Your task to perform on an android device: turn off improve location accuracy Image 0: 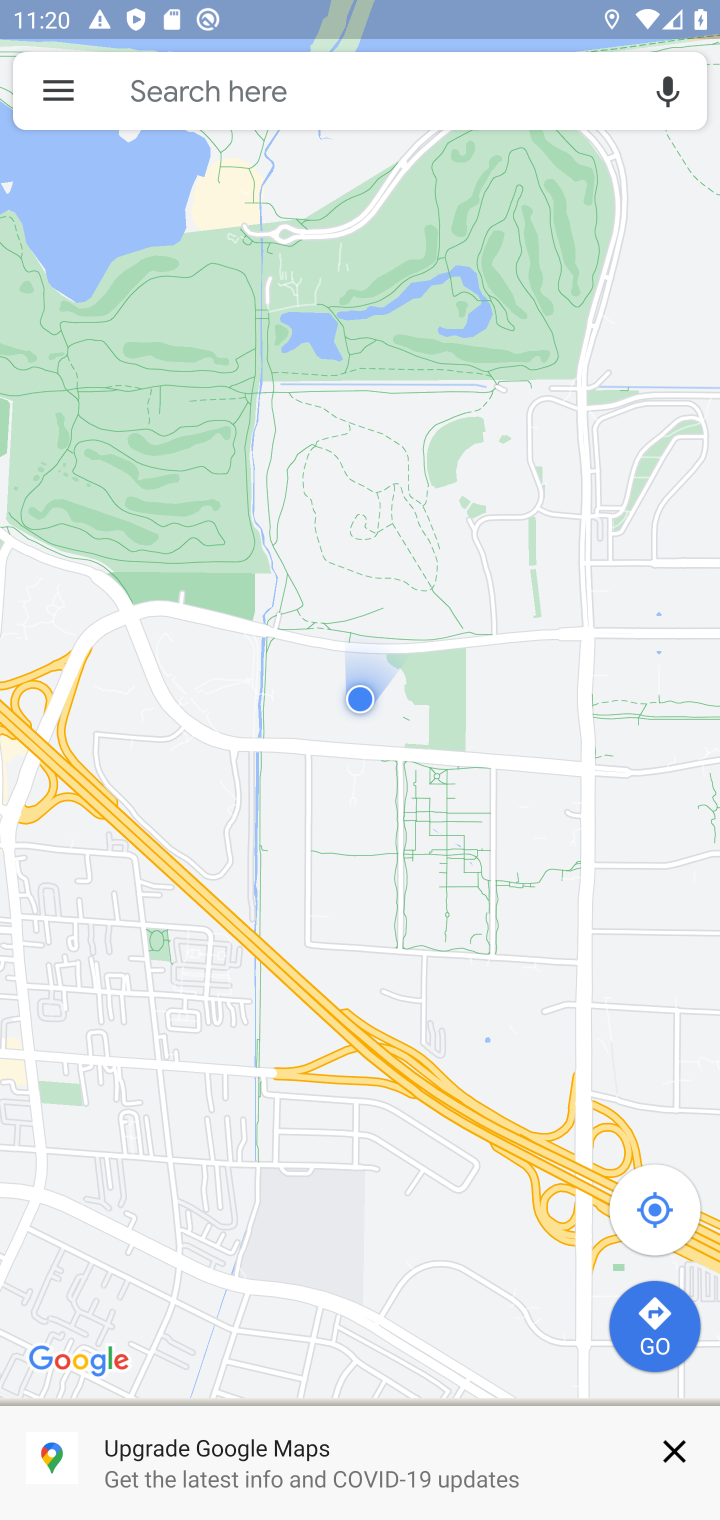
Step 0: press home button
Your task to perform on an android device: turn off improve location accuracy Image 1: 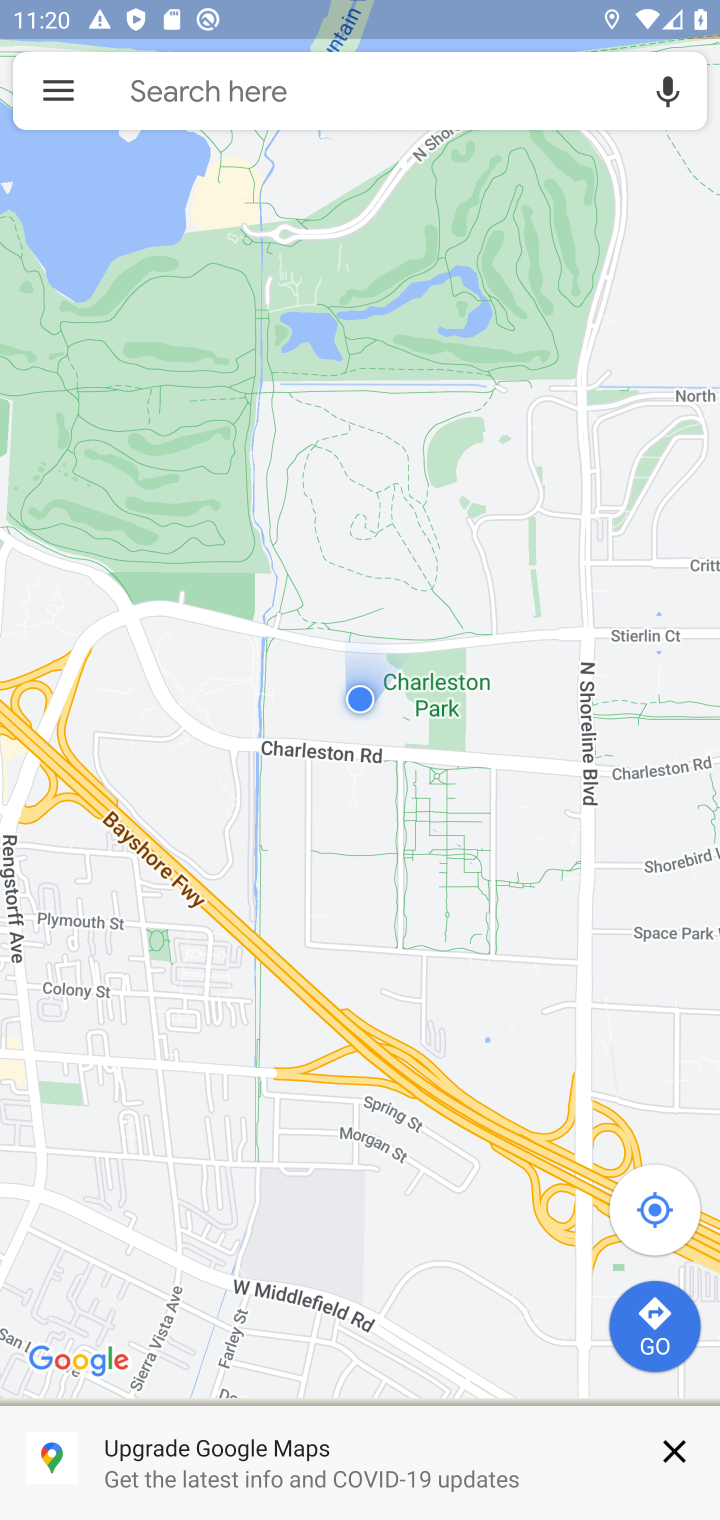
Step 1: press home button
Your task to perform on an android device: turn off improve location accuracy Image 2: 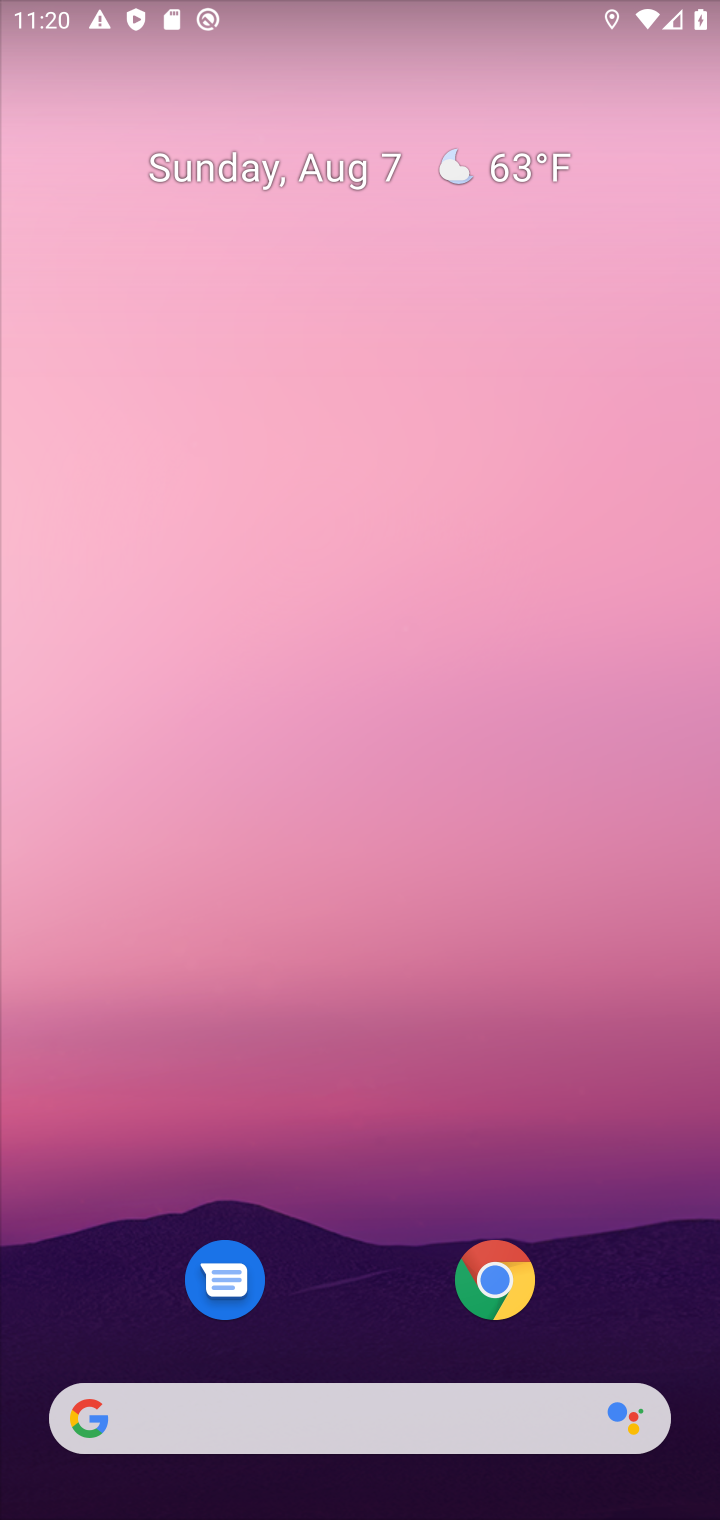
Step 2: press home button
Your task to perform on an android device: turn off improve location accuracy Image 3: 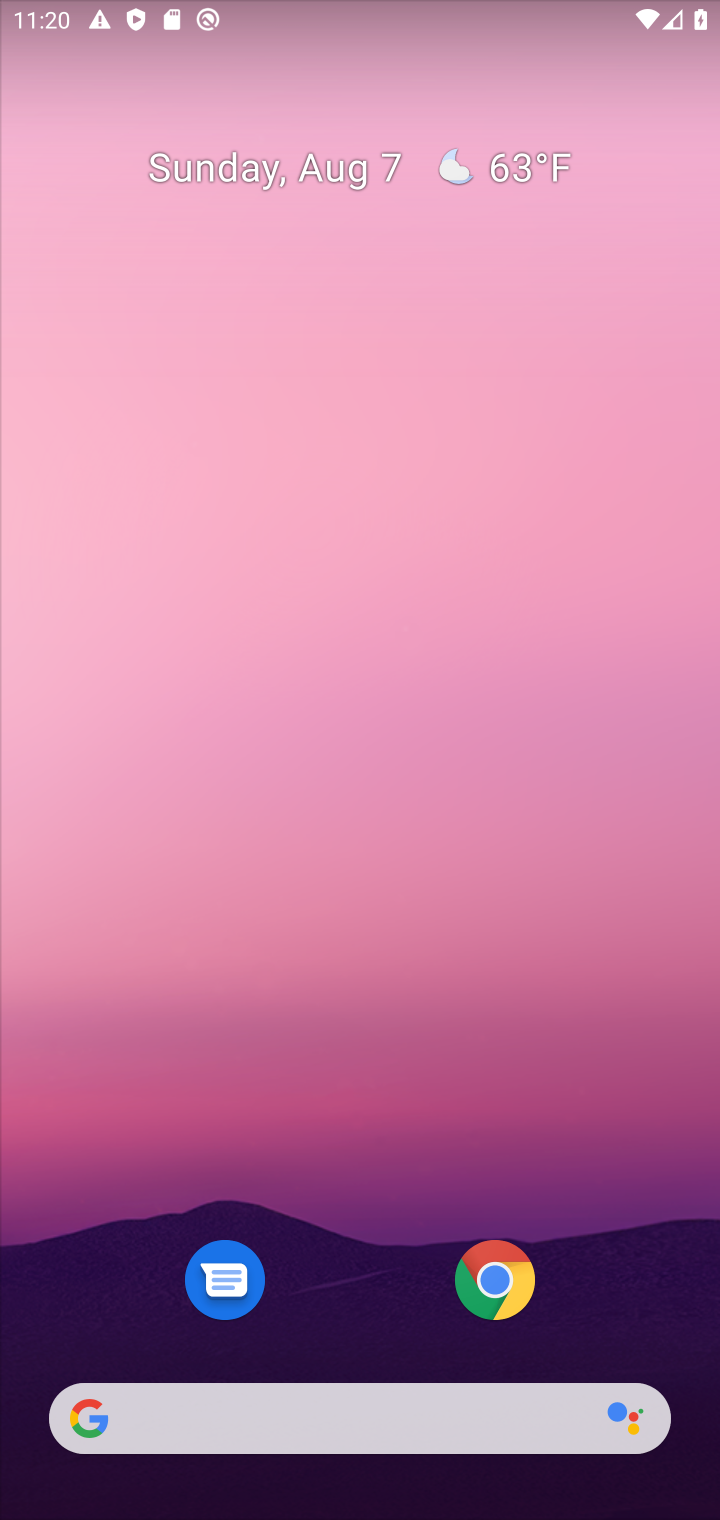
Step 3: drag from (375, 1168) to (278, 183)
Your task to perform on an android device: turn off improve location accuracy Image 4: 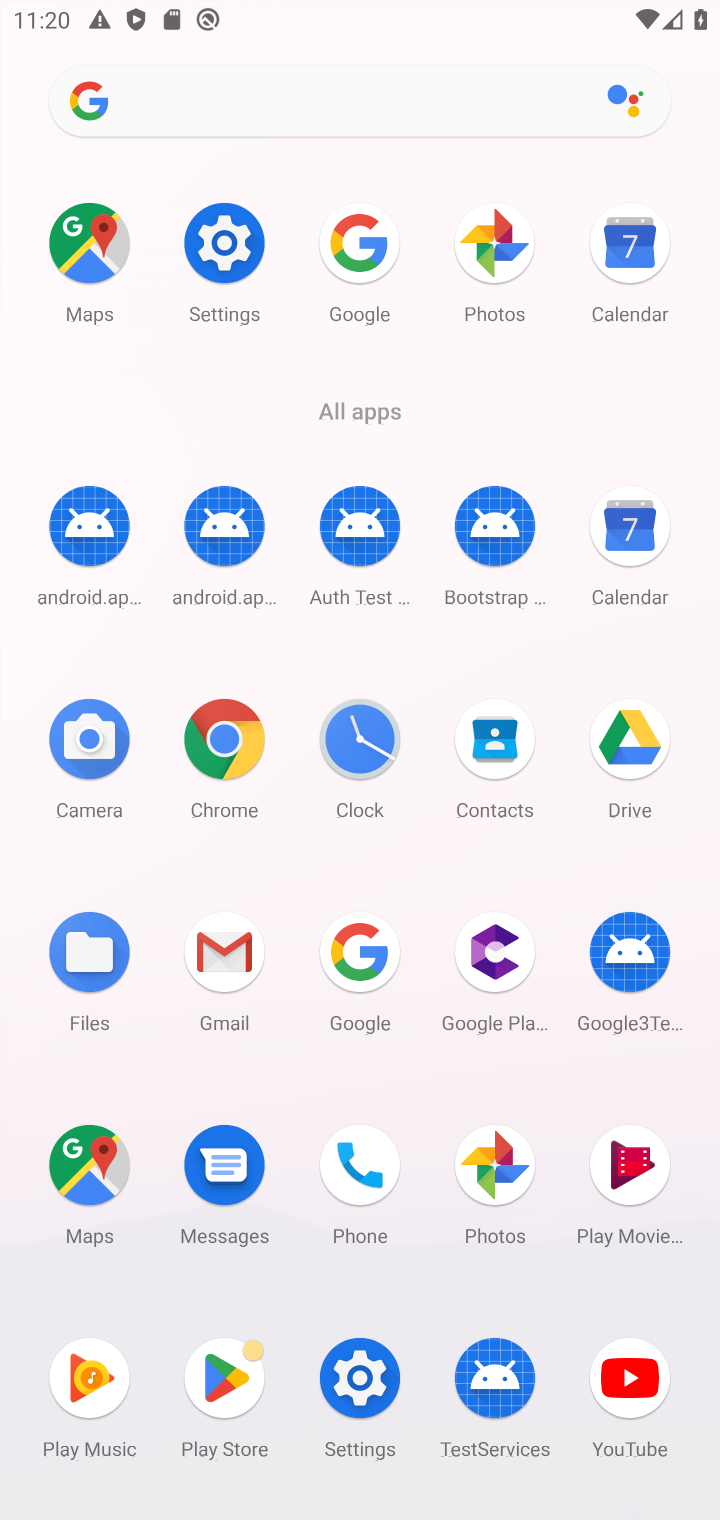
Step 4: click (345, 1380)
Your task to perform on an android device: turn off improve location accuracy Image 5: 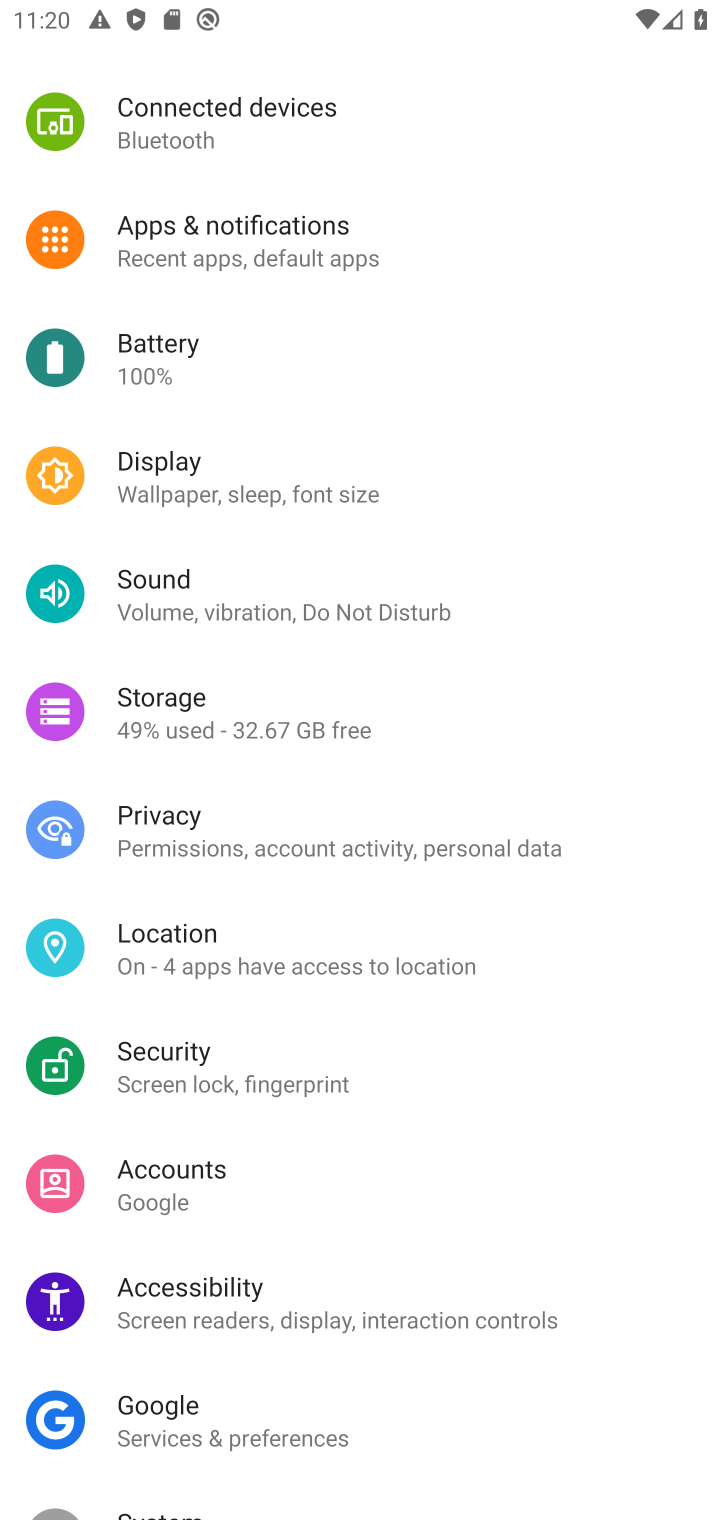
Step 5: click (171, 934)
Your task to perform on an android device: turn off improve location accuracy Image 6: 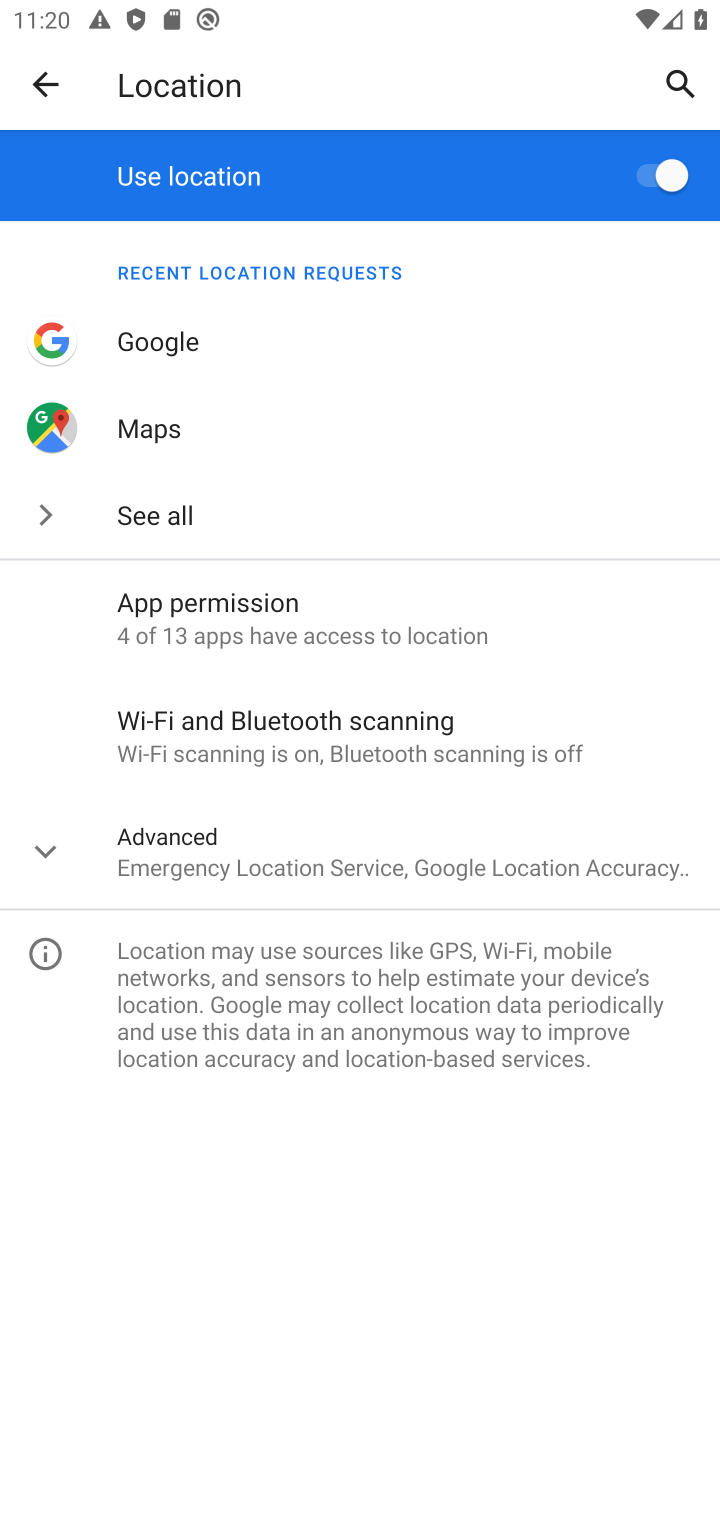
Step 6: click (252, 869)
Your task to perform on an android device: turn off improve location accuracy Image 7: 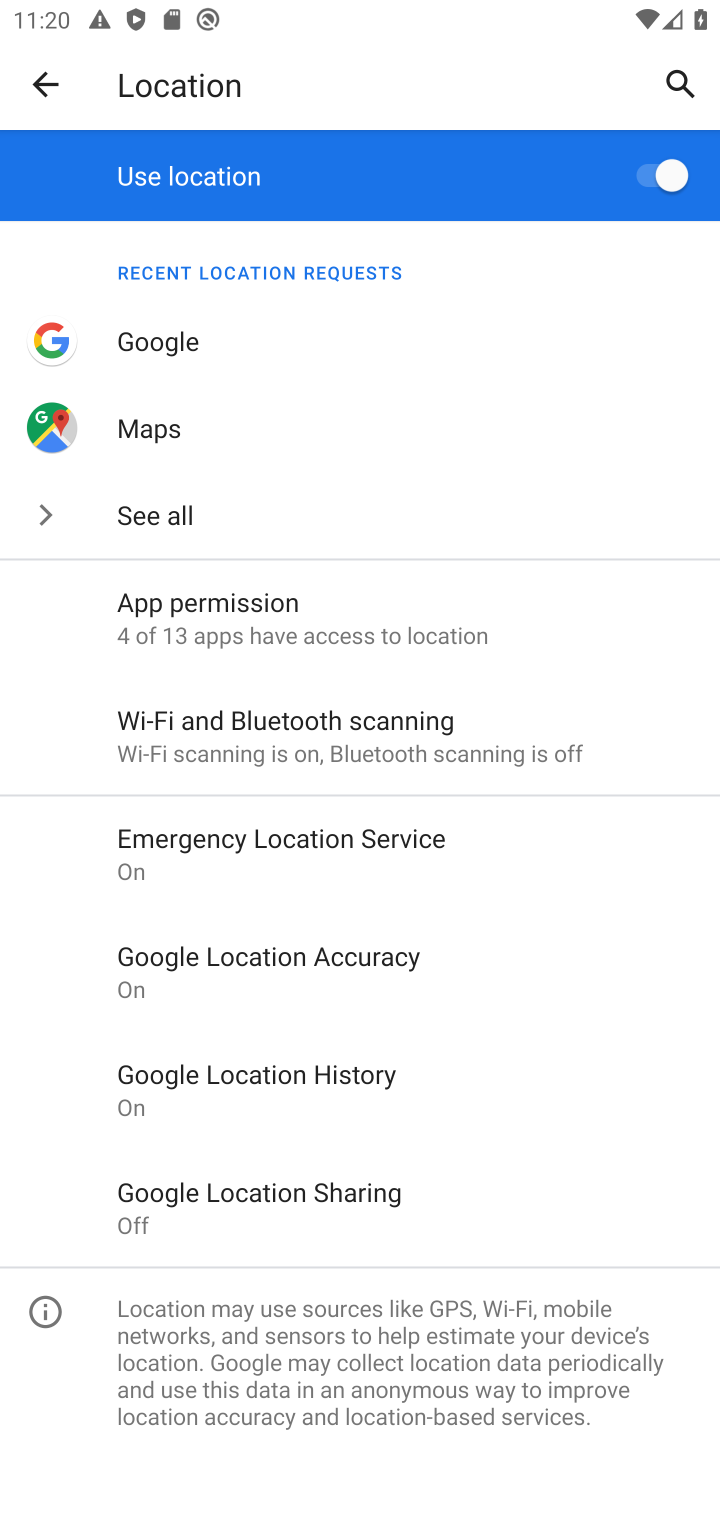
Step 7: click (315, 959)
Your task to perform on an android device: turn off improve location accuracy Image 8: 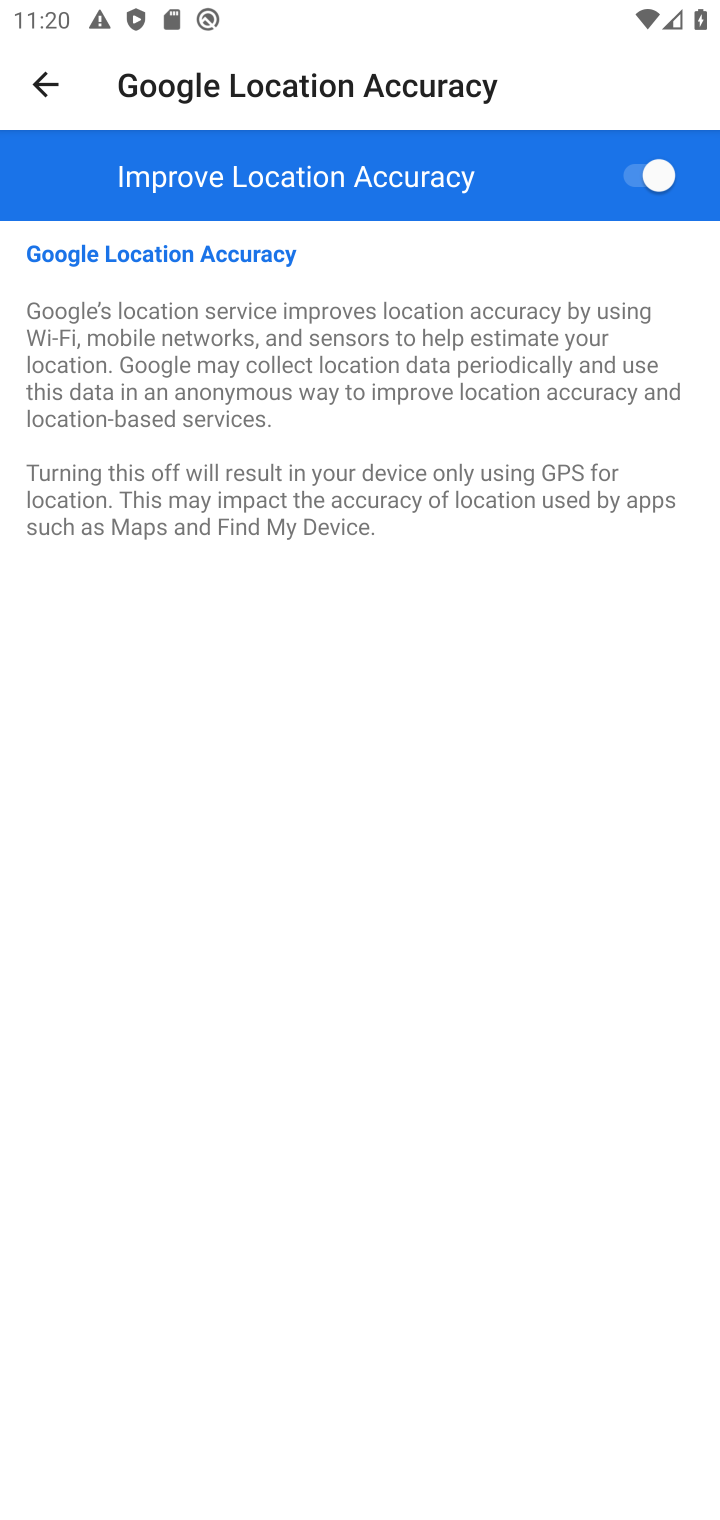
Step 8: click (631, 175)
Your task to perform on an android device: turn off improve location accuracy Image 9: 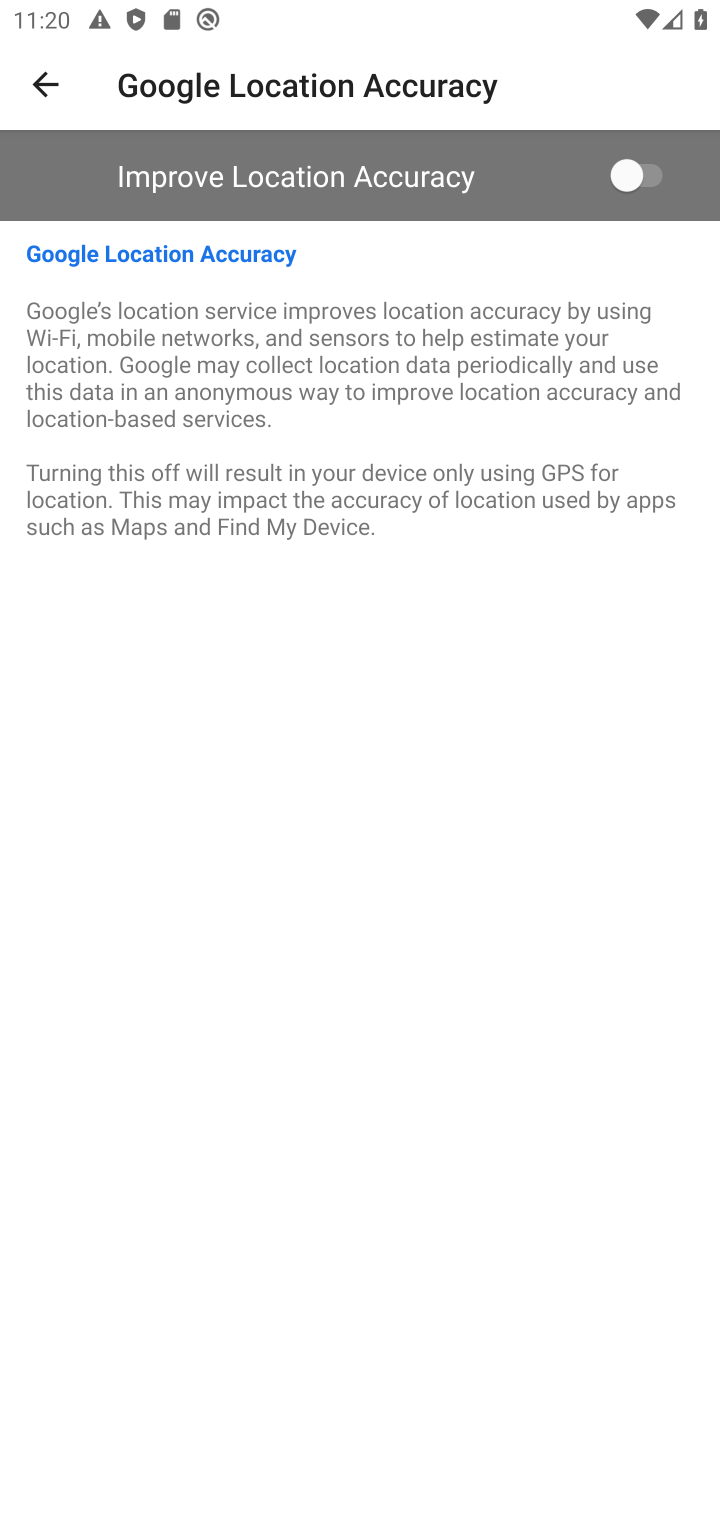
Step 9: task complete